Your task to perform on an android device: check storage Image 0: 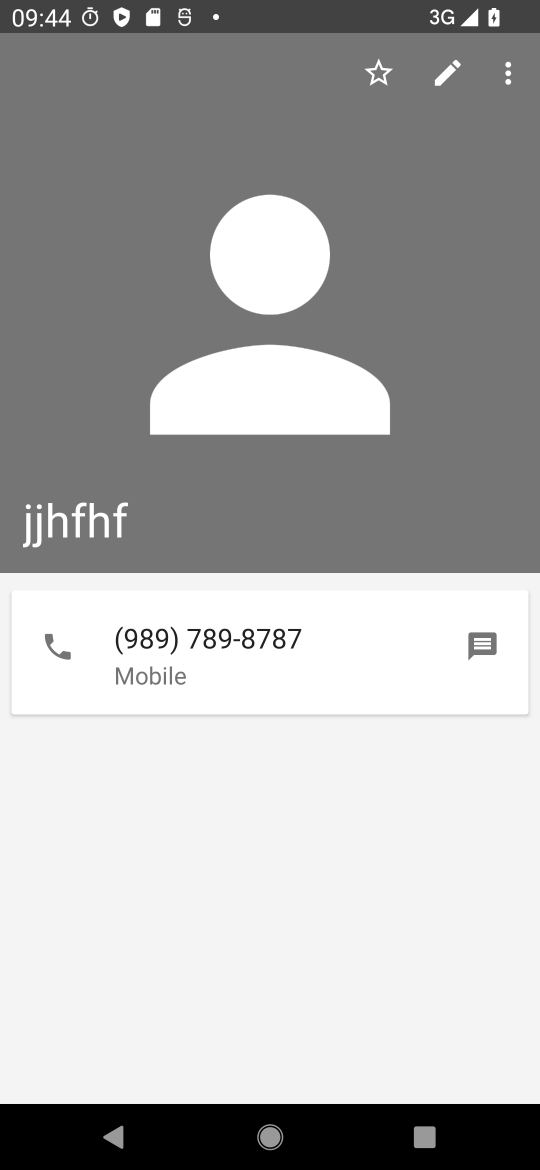
Step 0: press home button
Your task to perform on an android device: check storage Image 1: 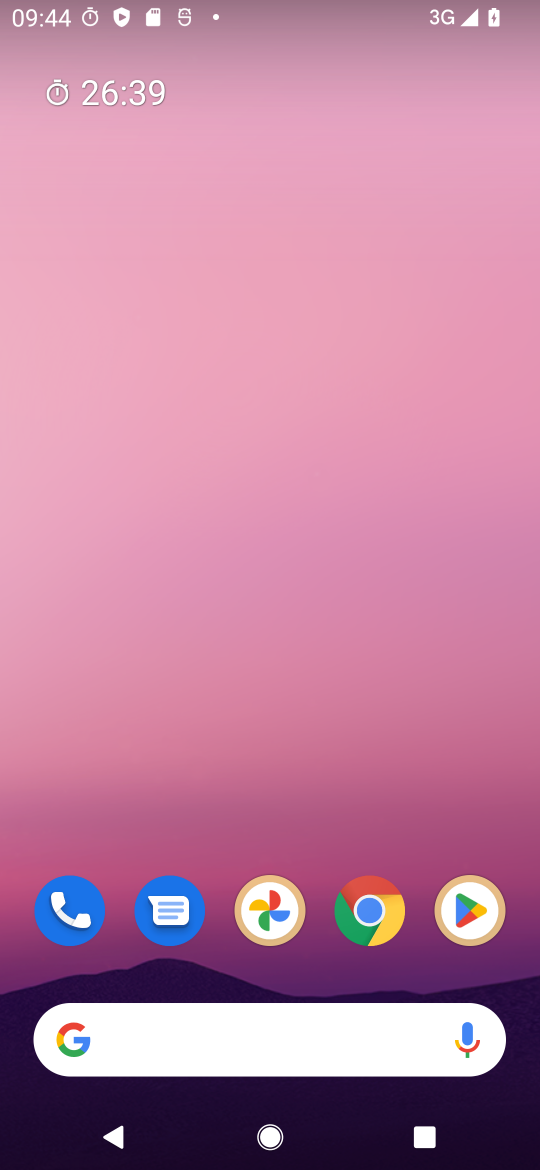
Step 1: drag from (330, 1055) to (330, 153)
Your task to perform on an android device: check storage Image 2: 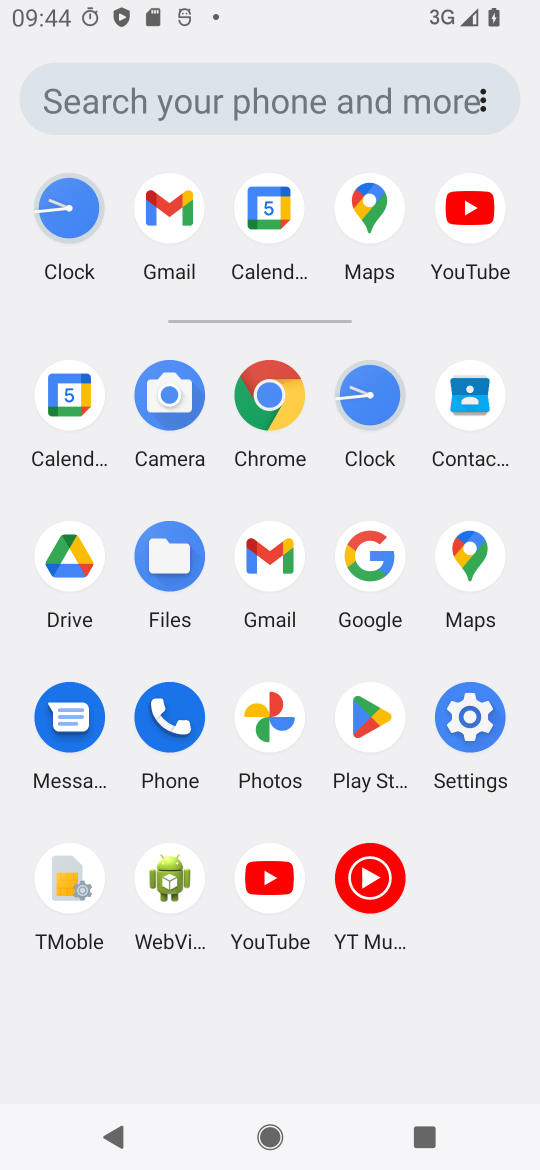
Step 2: click (484, 738)
Your task to perform on an android device: check storage Image 3: 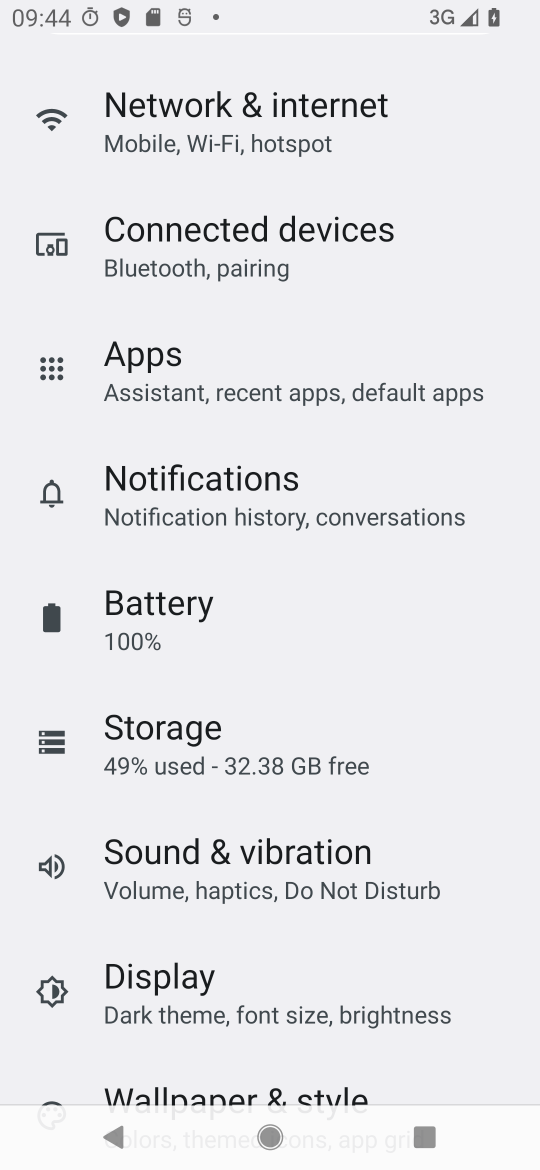
Step 3: click (249, 750)
Your task to perform on an android device: check storage Image 4: 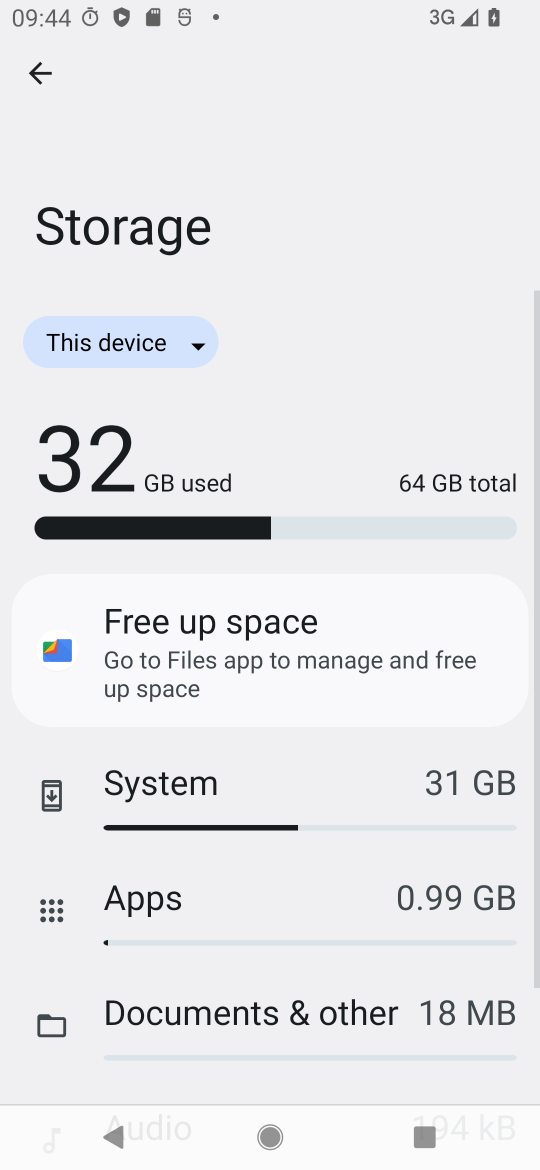
Step 4: task complete